Your task to perform on an android device: open app "Indeed Job Search" (install if not already installed) Image 0: 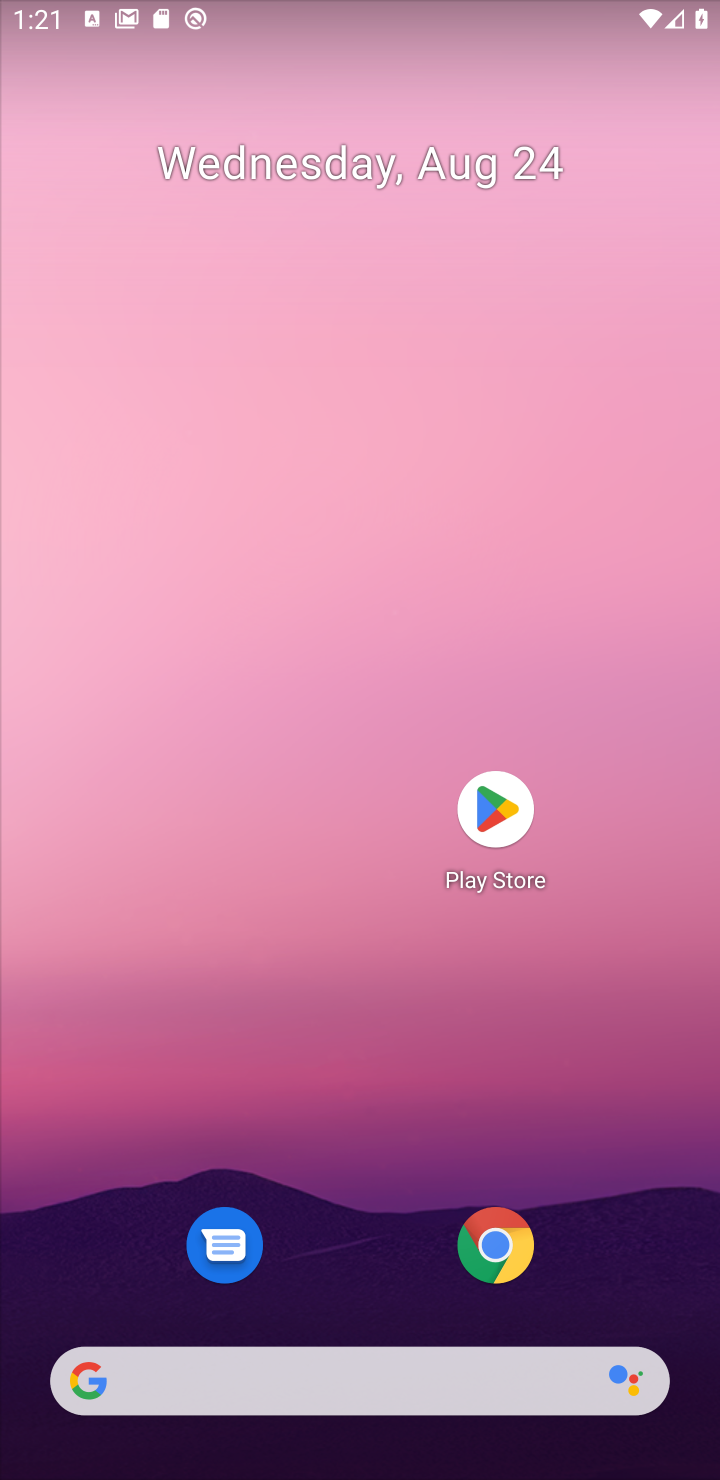
Step 0: click (508, 804)
Your task to perform on an android device: open app "Indeed Job Search" (install if not already installed) Image 1: 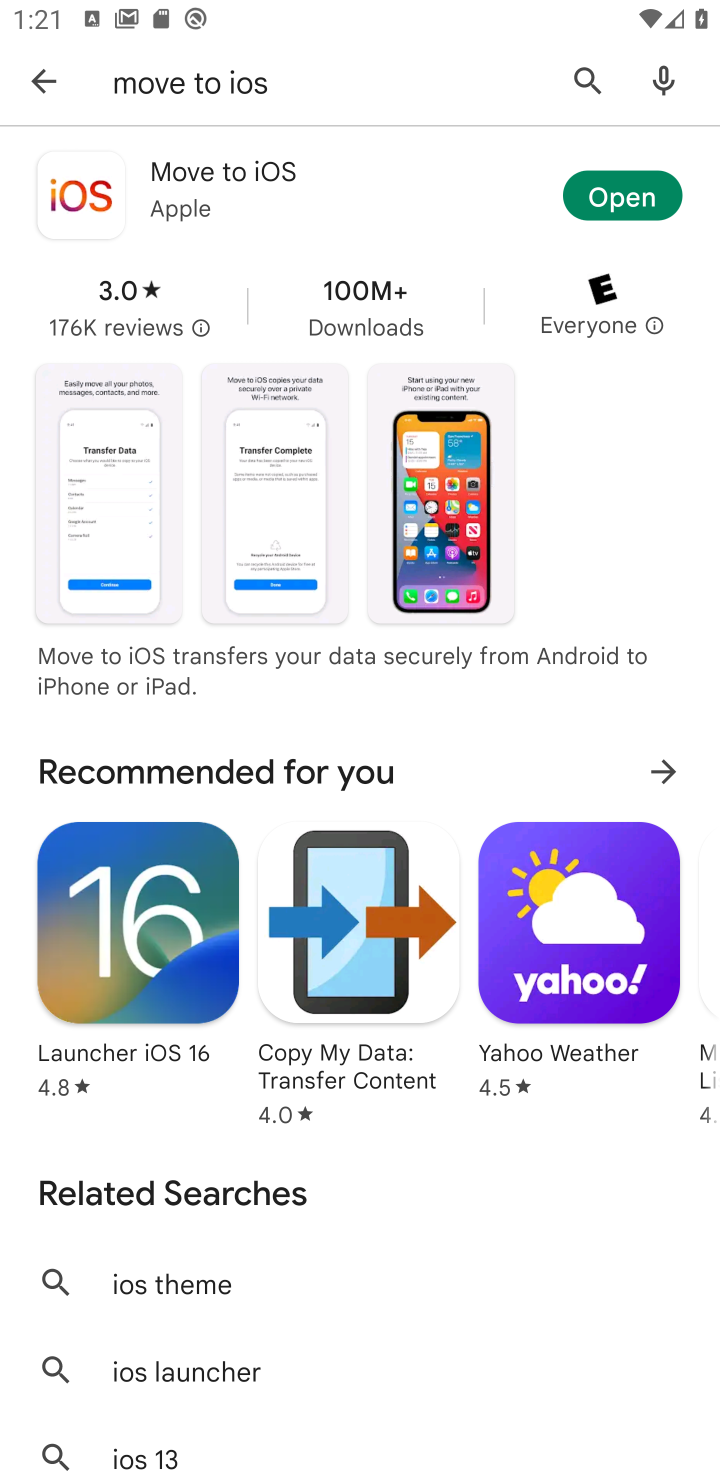
Step 1: click (586, 65)
Your task to perform on an android device: open app "Indeed Job Search" (install if not already installed) Image 2: 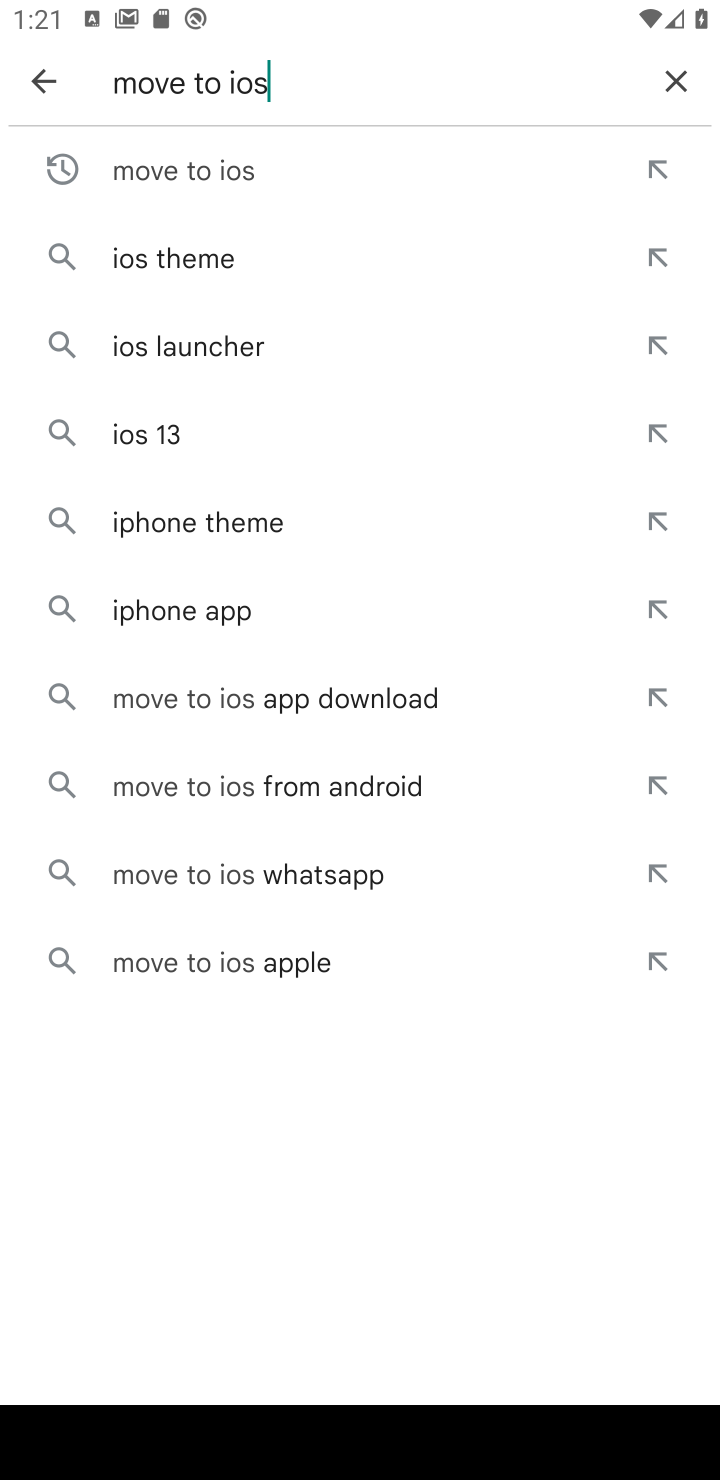
Step 2: click (676, 68)
Your task to perform on an android device: open app "Indeed Job Search" (install if not already installed) Image 3: 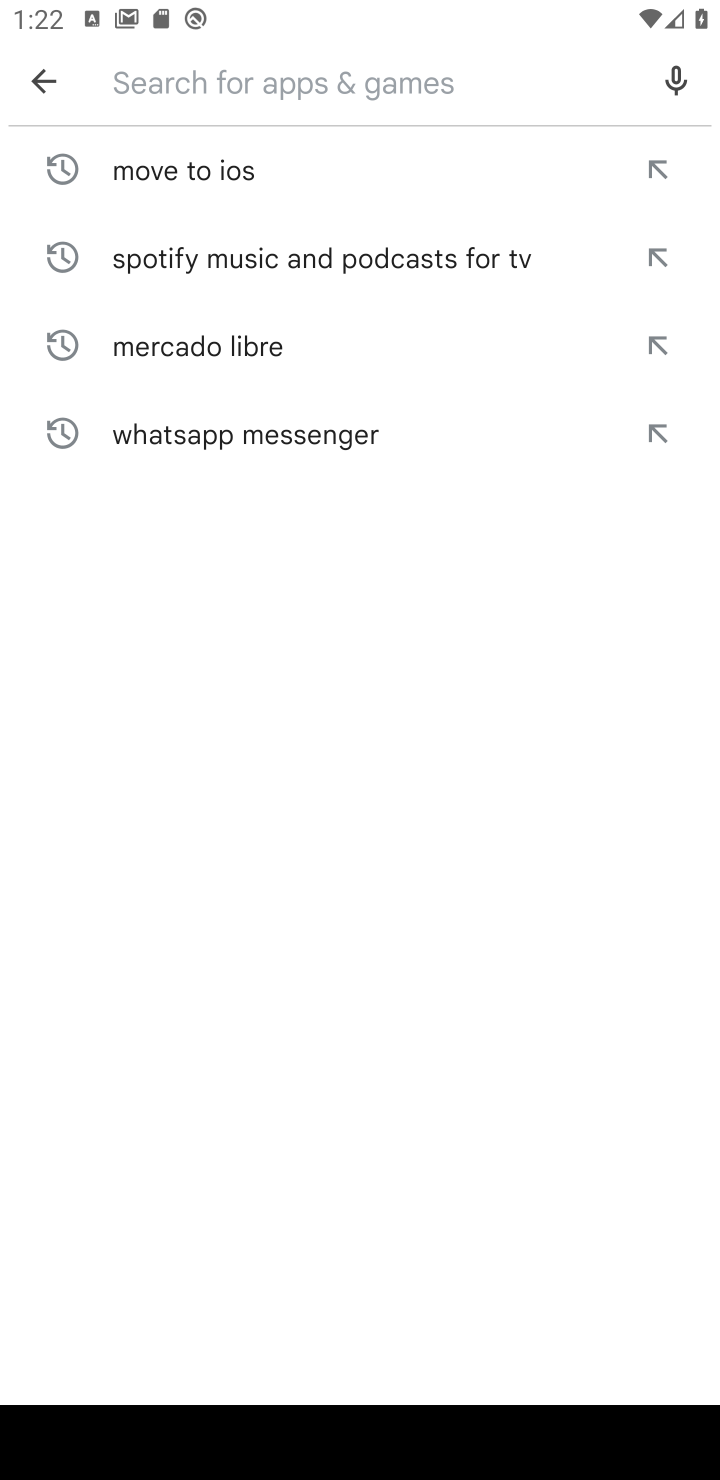
Step 3: type "Indeed Job Search"
Your task to perform on an android device: open app "Indeed Job Search" (install if not already installed) Image 4: 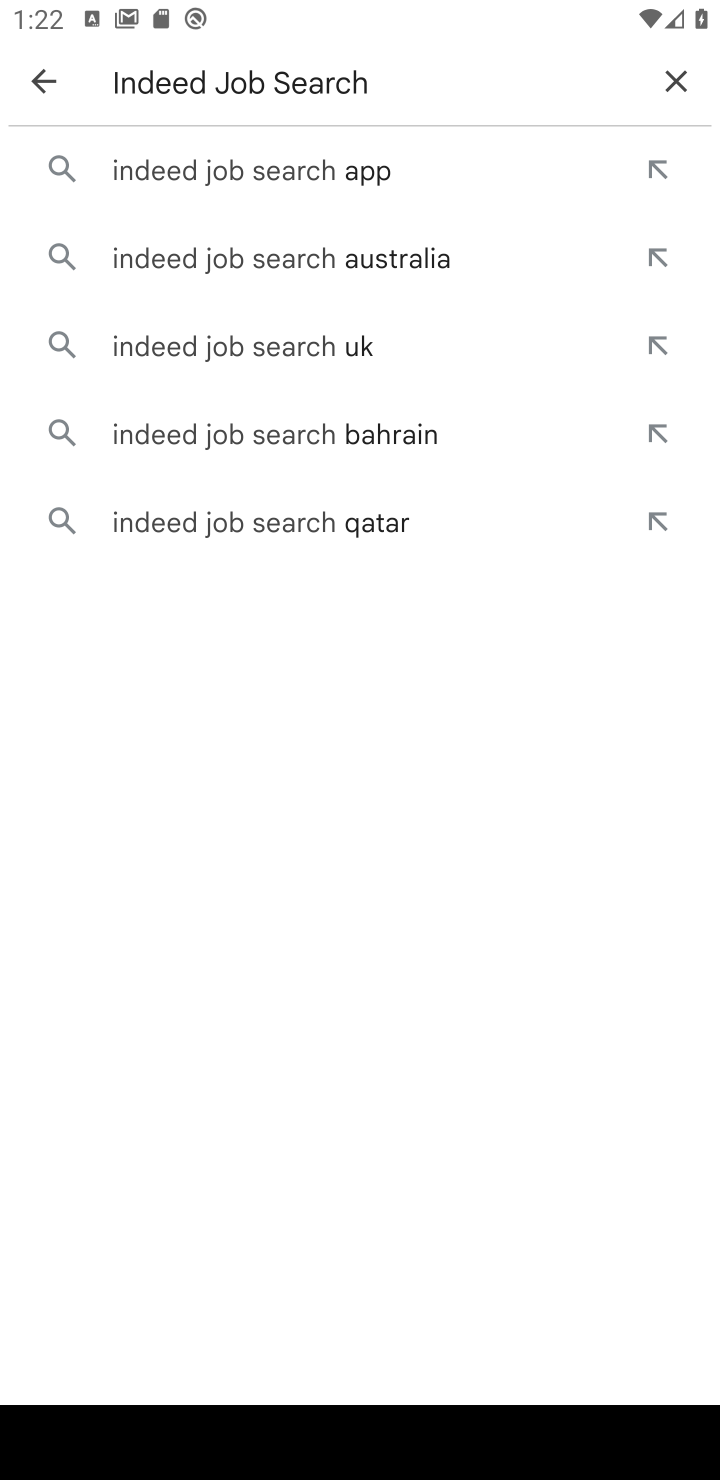
Step 4: click (358, 153)
Your task to perform on an android device: open app "Indeed Job Search" (install if not already installed) Image 5: 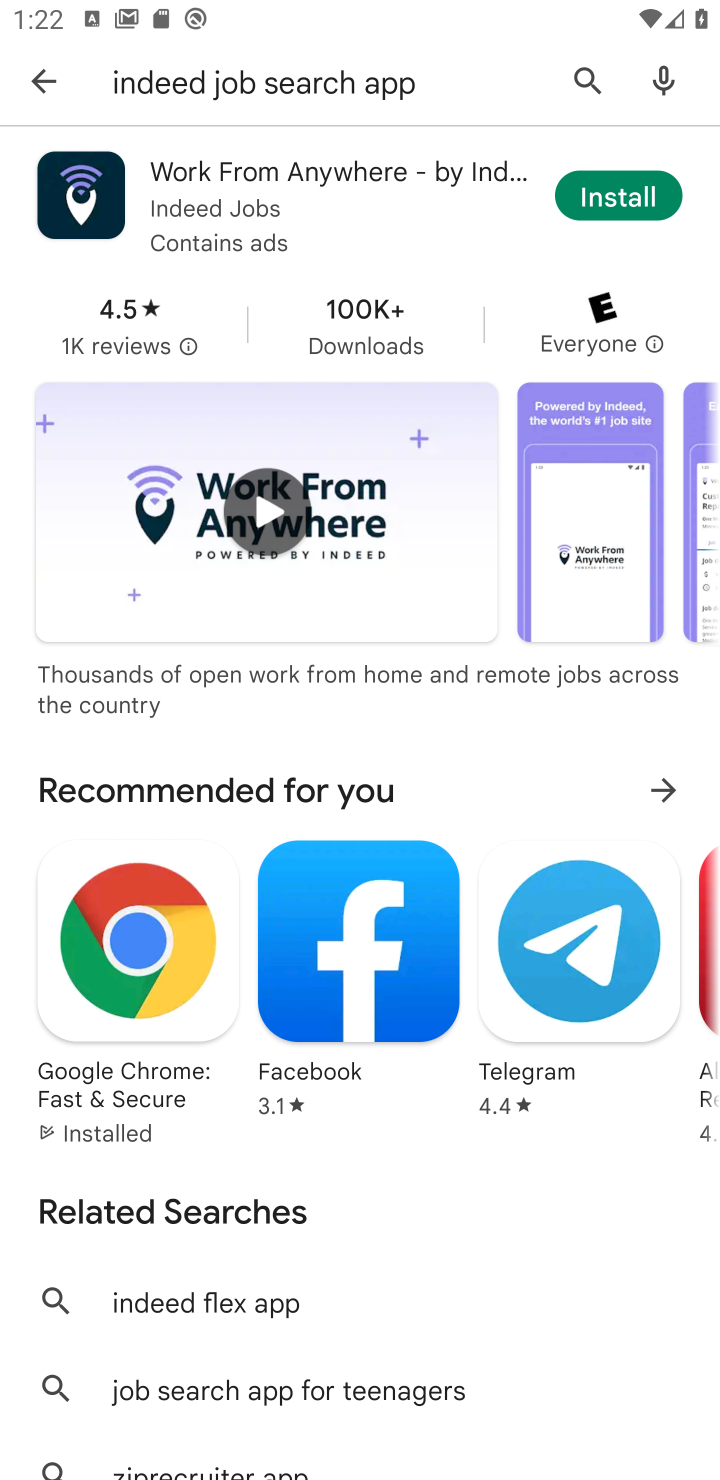
Step 5: click (601, 200)
Your task to perform on an android device: open app "Indeed Job Search" (install if not already installed) Image 6: 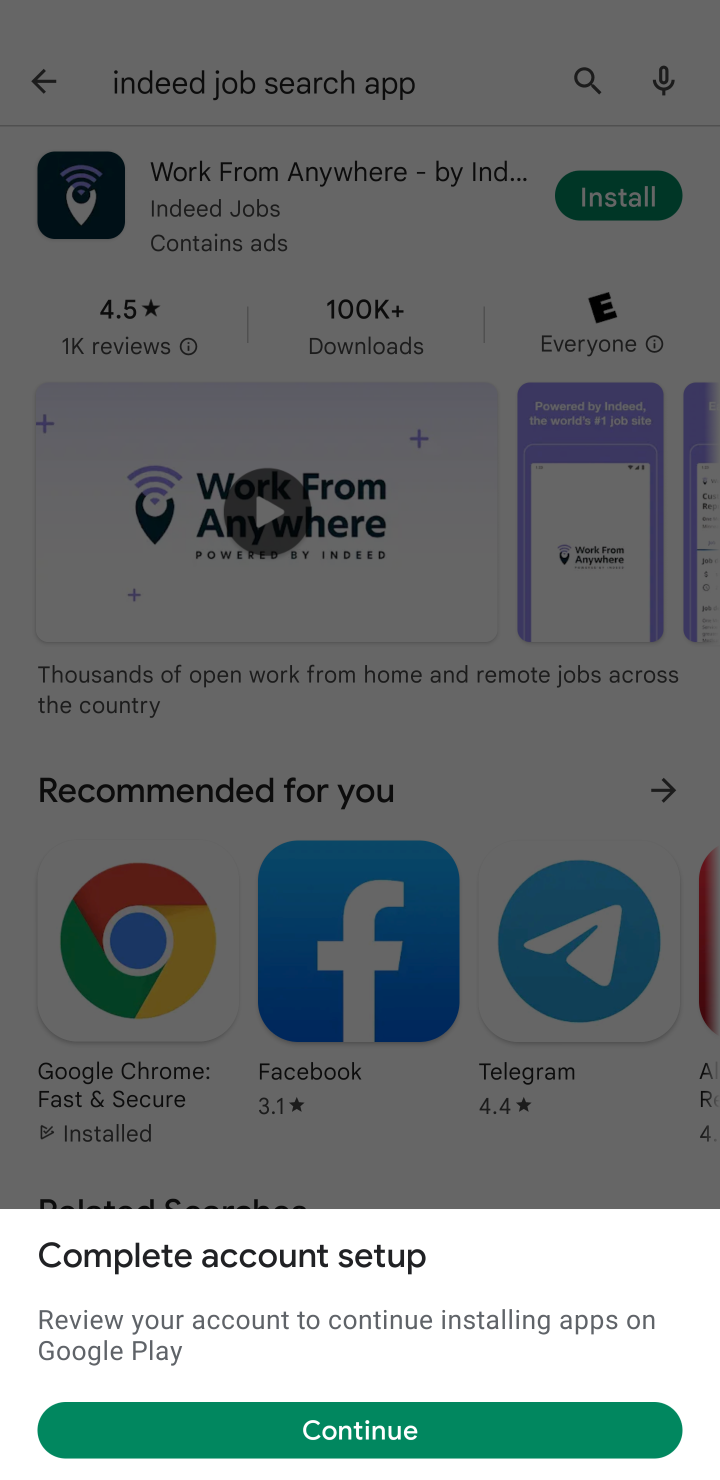
Step 6: click (399, 1444)
Your task to perform on an android device: open app "Indeed Job Search" (install if not already installed) Image 7: 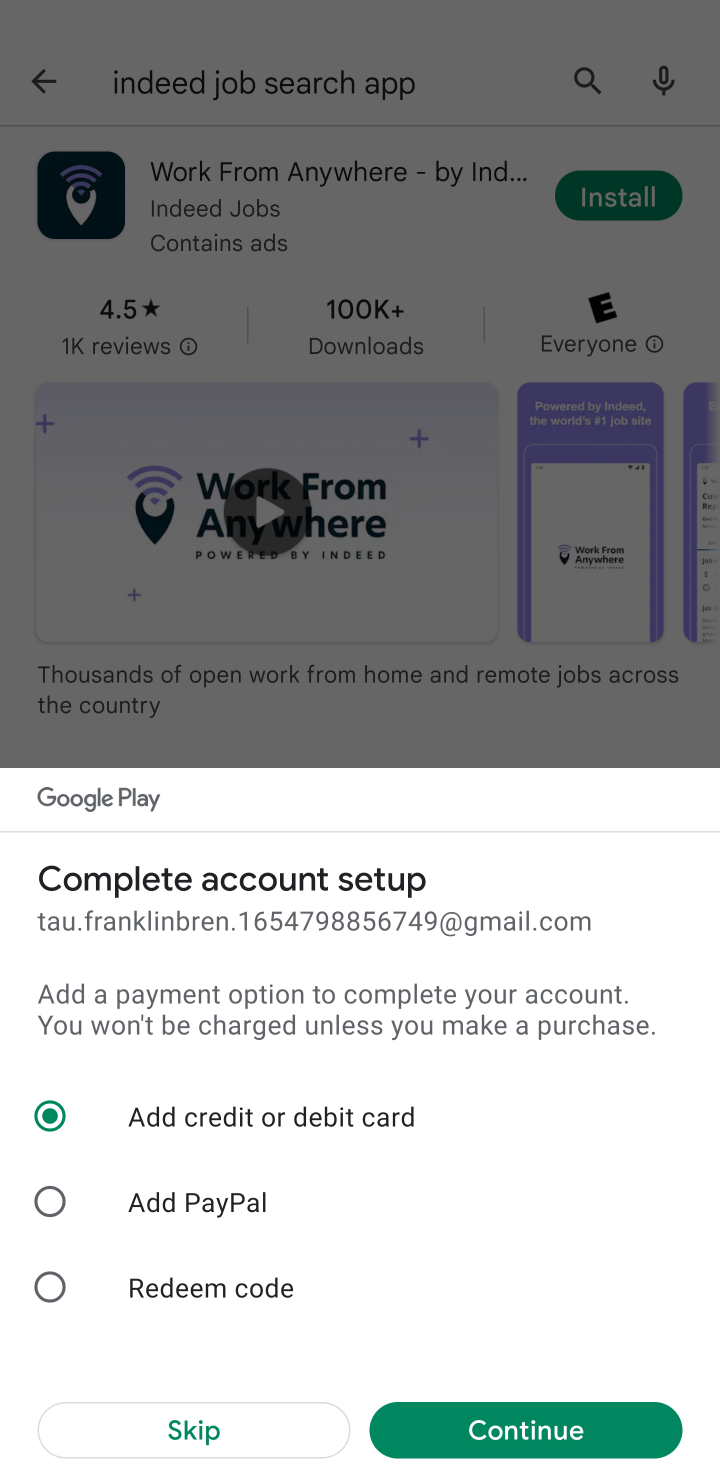
Step 7: click (210, 1440)
Your task to perform on an android device: open app "Indeed Job Search" (install if not already installed) Image 8: 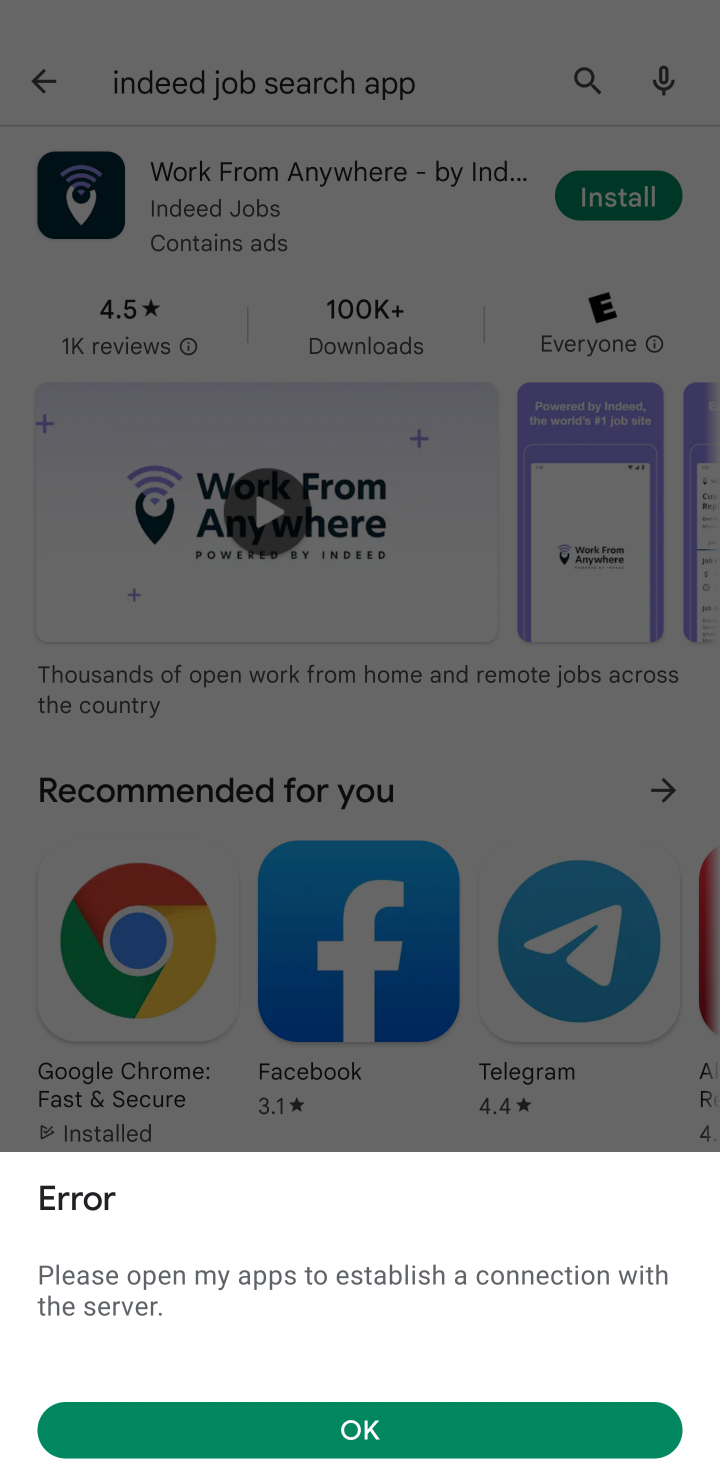
Step 8: click (366, 1433)
Your task to perform on an android device: open app "Indeed Job Search" (install if not already installed) Image 9: 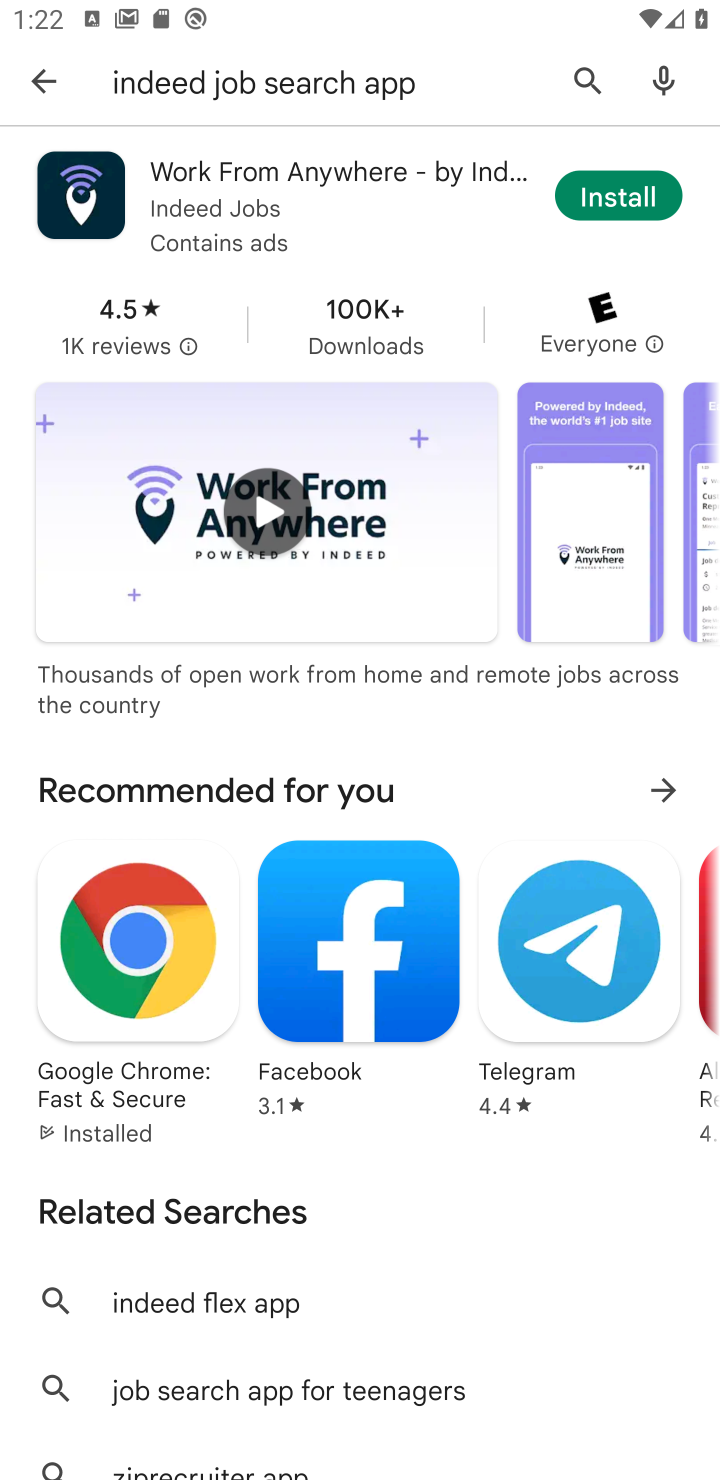
Step 9: click (583, 200)
Your task to perform on an android device: open app "Indeed Job Search" (install if not already installed) Image 10: 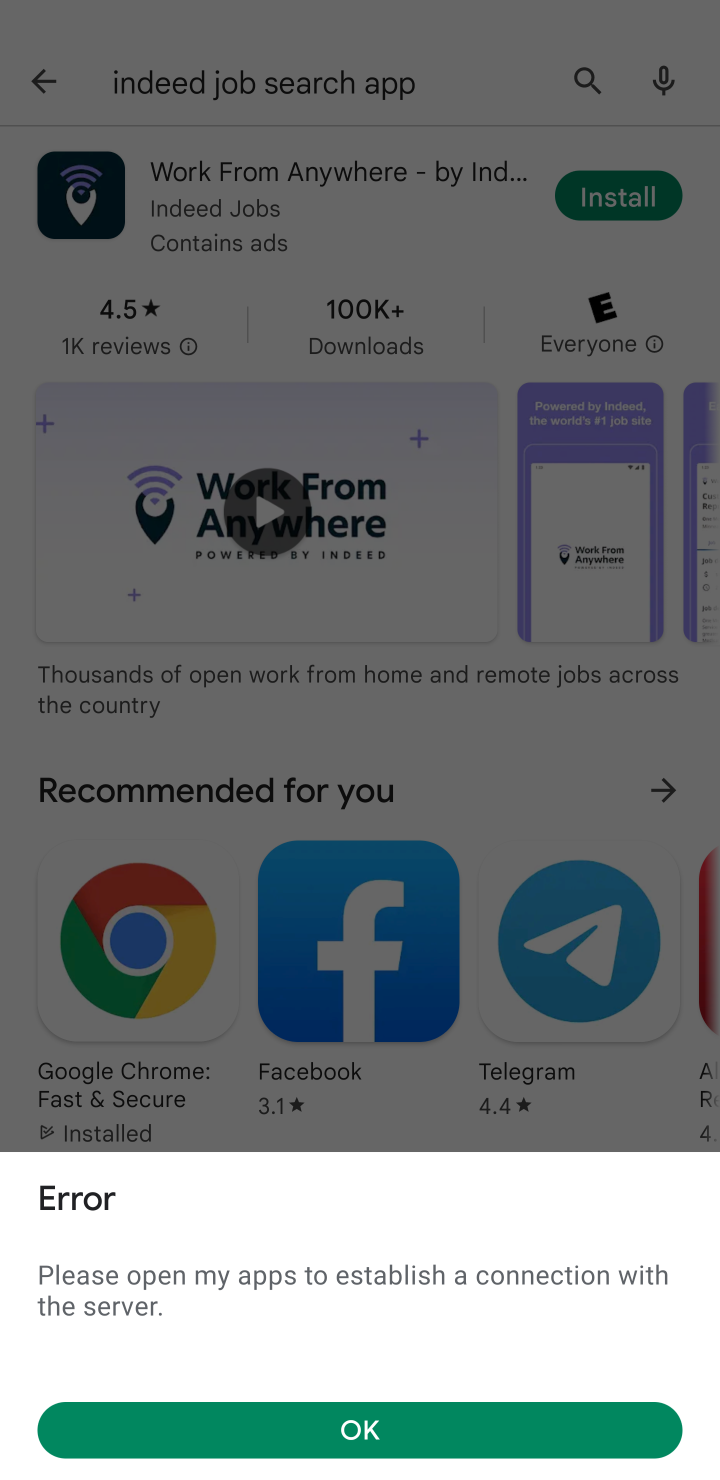
Step 10: click (285, 1304)
Your task to perform on an android device: open app "Indeed Job Search" (install if not already installed) Image 11: 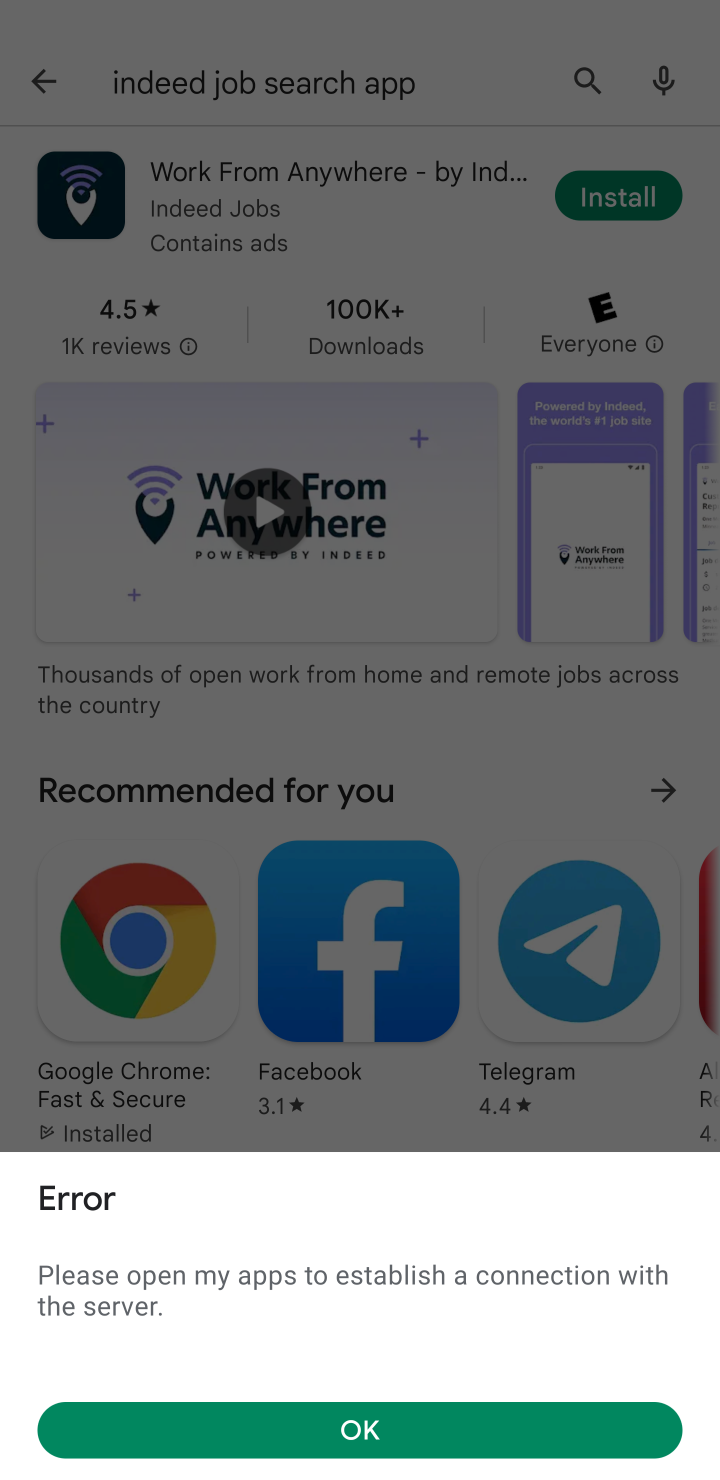
Step 11: click (360, 1423)
Your task to perform on an android device: open app "Indeed Job Search" (install if not already installed) Image 12: 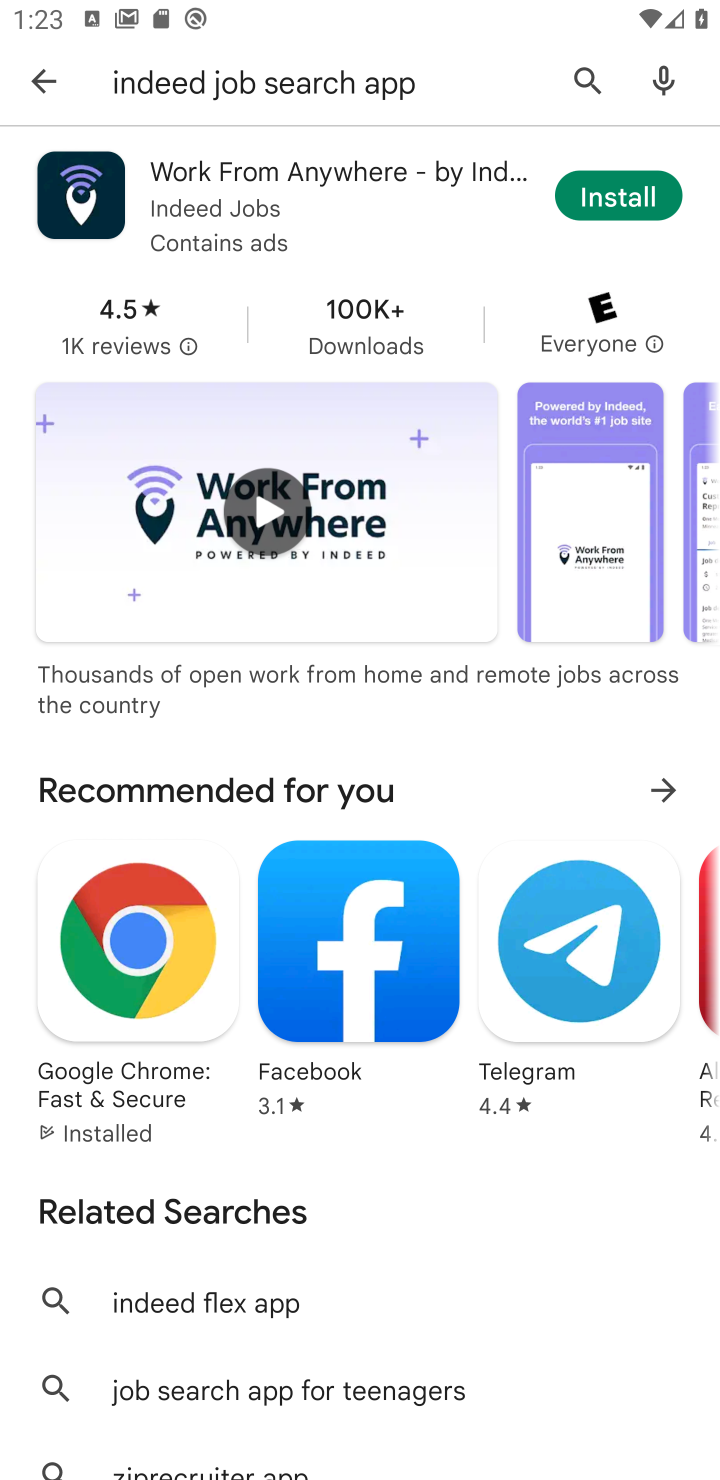
Step 12: task complete